Your task to perform on an android device: turn on showing notifications on the lock screen Image 0: 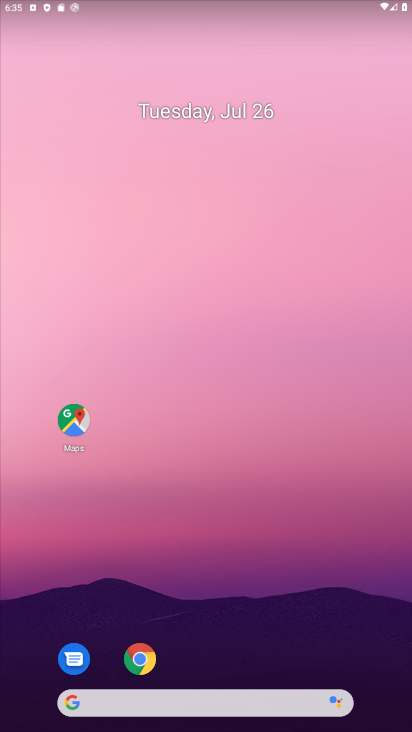
Step 0: drag from (297, 480) to (320, 204)
Your task to perform on an android device: turn on showing notifications on the lock screen Image 1: 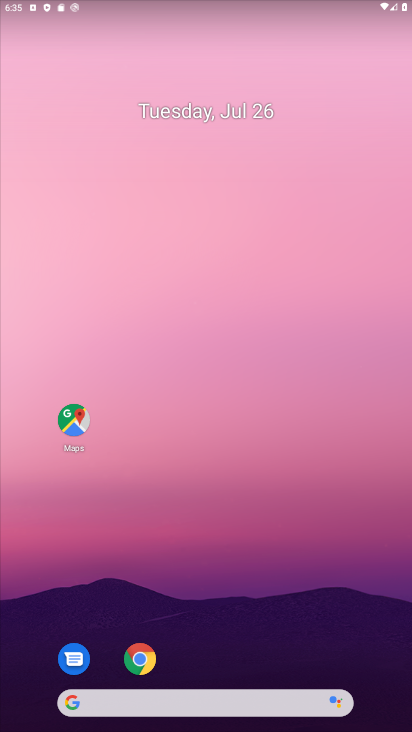
Step 1: drag from (281, 569) to (298, 135)
Your task to perform on an android device: turn on showing notifications on the lock screen Image 2: 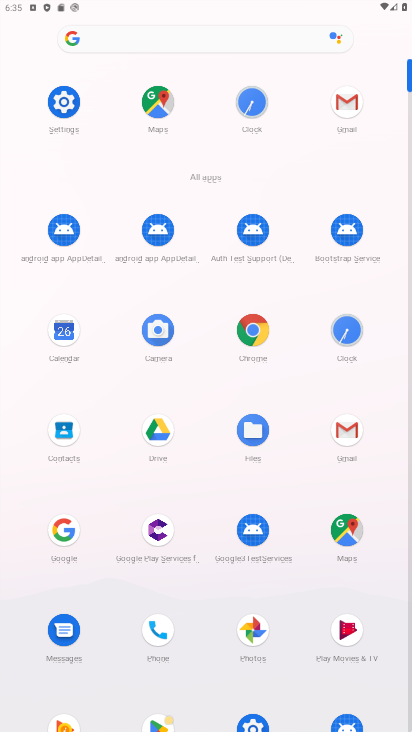
Step 2: click (250, 719)
Your task to perform on an android device: turn on showing notifications on the lock screen Image 3: 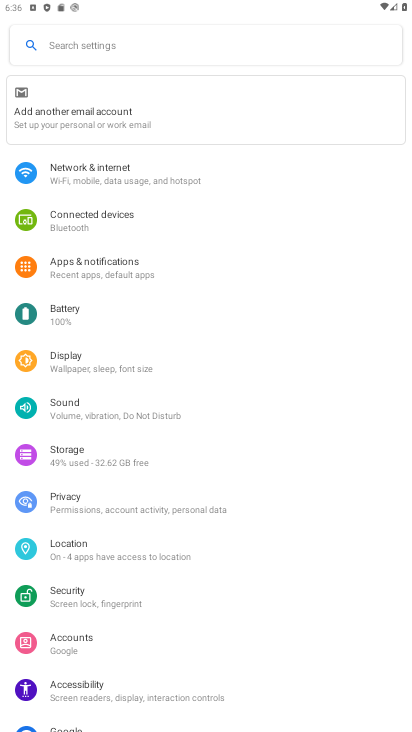
Step 3: click (87, 598)
Your task to perform on an android device: turn on showing notifications on the lock screen Image 4: 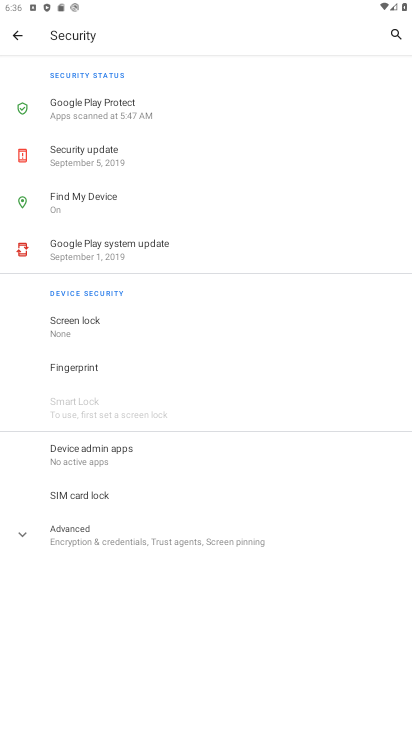
Step 4: task complete